Your task to perform on an android device: toggle show notifications on the lock screen Image 0: 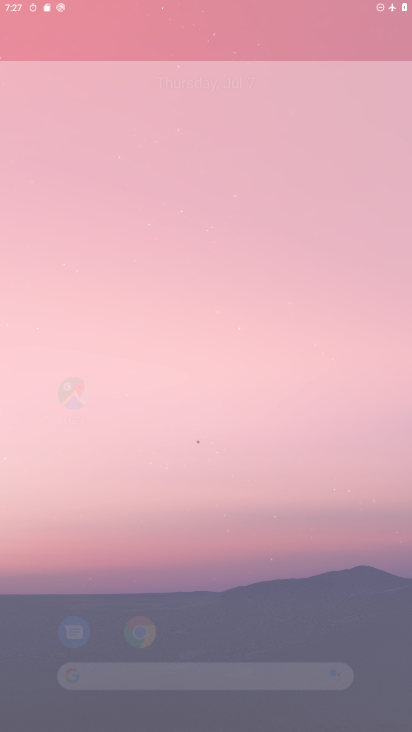
Step 0: drag from (193, 76) to (221, 3)
Your task to perform on an android device: toggle show notifications on the lock screen Image 1: 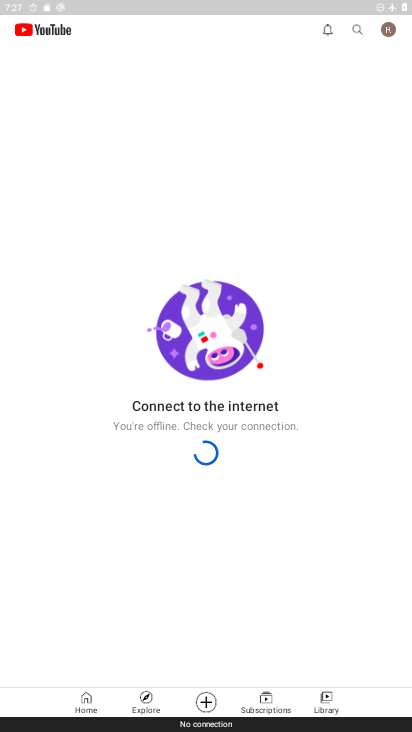
Step 1: press home button
Your task to perform on an android device: toggle show notifications on the lock screen Image 2: 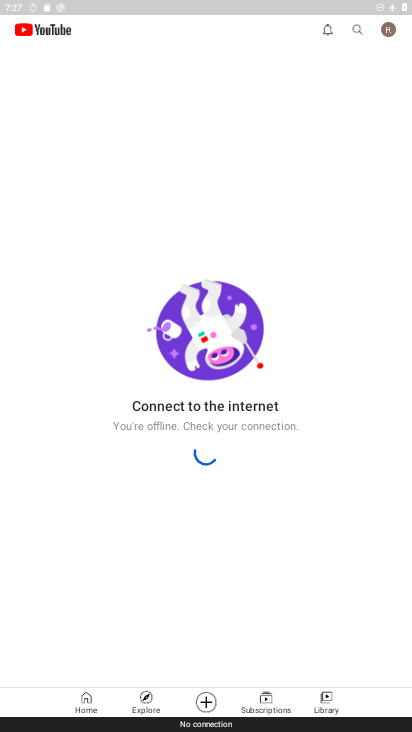
Step 2: drag from (265, 416) to (164, 1)
Your task to perform on an android device: toggle show notifications on the lock screen Image 3: 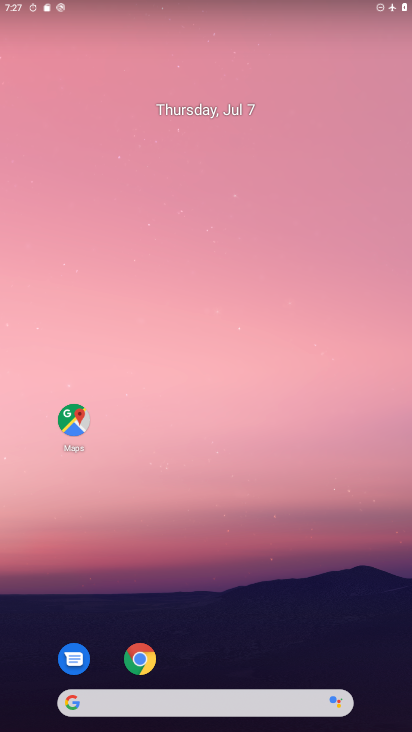
Step 3: drag from (354, 613) to (196, 0)
Your task to perform on an android device: toggle show notifications on the lock screen Image 4: 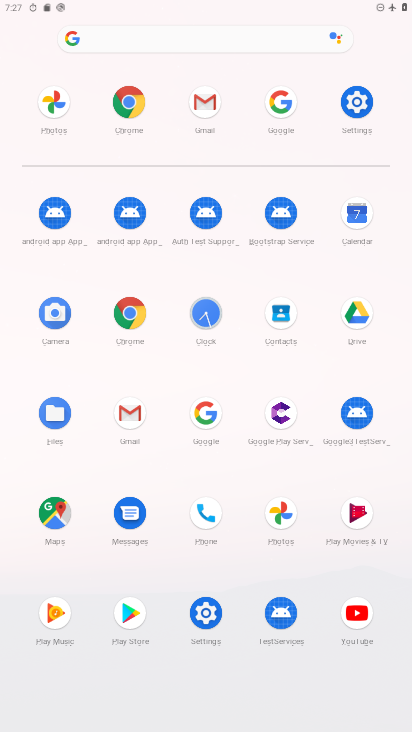
Step 4: click (348, 159)
Your task to perform on an android device: toggle show notifications on the lock screen Image 5: 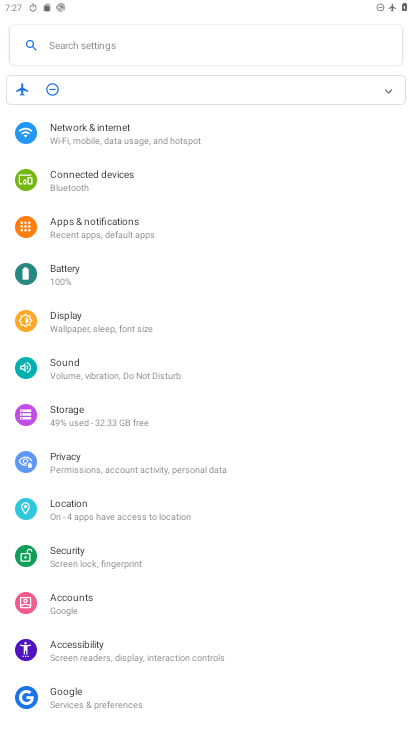
Step 5: click (92, 232)
Your task to perform on an android device: toggle show notifications on the lock screen Image 6: 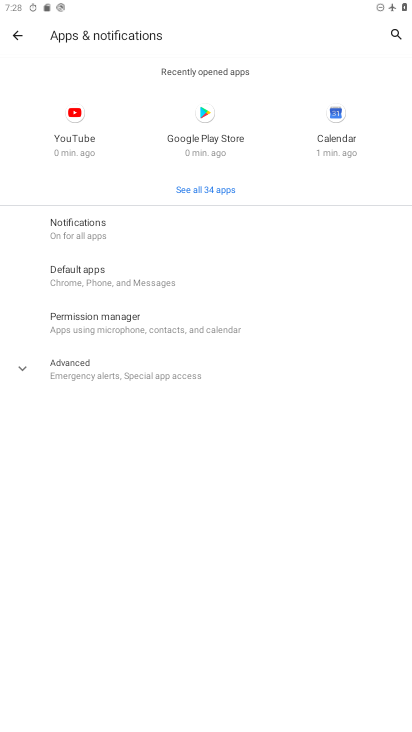
Step 6: click (88, 379)
Your task to perform on an android device: toggle show notifications on the lock screen Image 7: 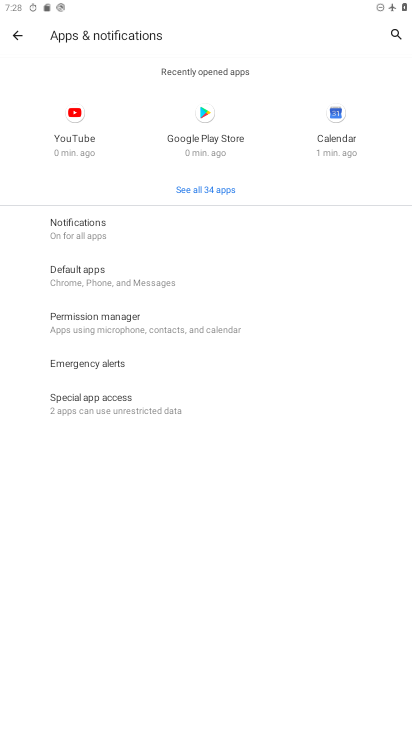
Step 7: click (116, 227)
Your task to perform on an android device: toggle show notifications on the lock screen Image 8: 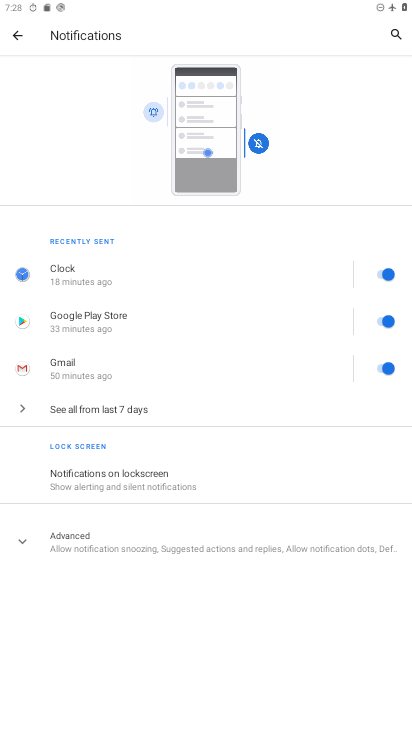
Step 8: click (130, 478)
Your task to perform on an android device: toggle show notifications on the lock screen Image 9: 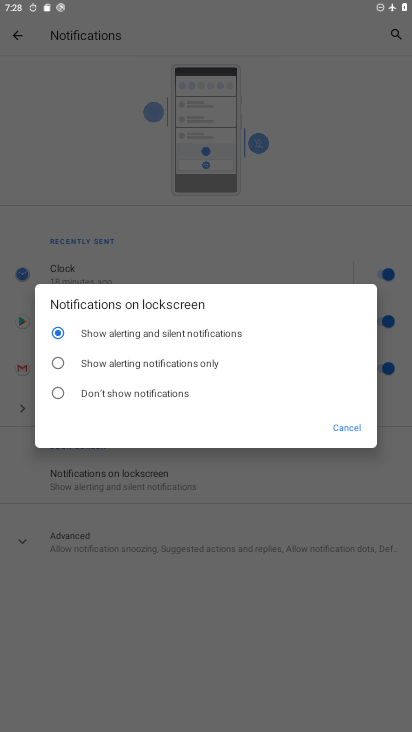
Step 9: click (91, 391)
Your task to perform on an android device: toggle show notifications on the lock screen Image 10: 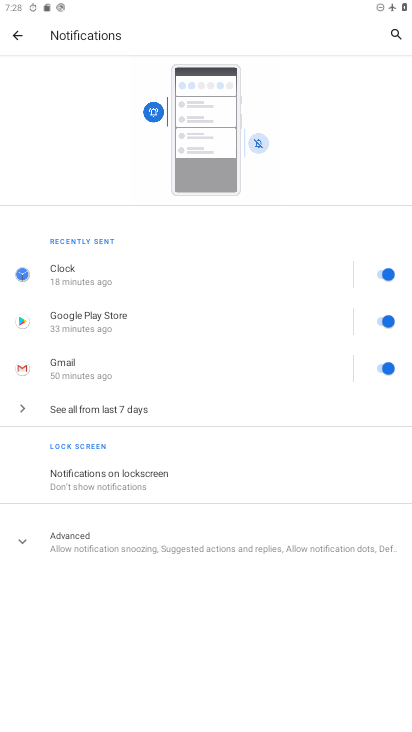
Step 10: task complete